Your task to perform on an android device: Open the web browser Image 0: 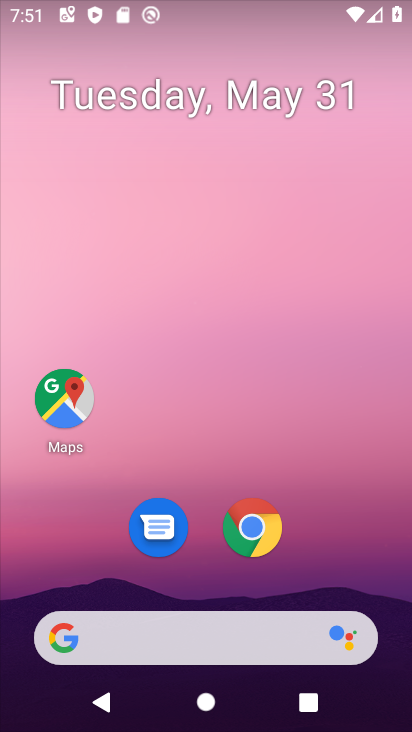
Step 0: click (252, 529)
Your task to perform on an android device: Open the web browser Image 1: 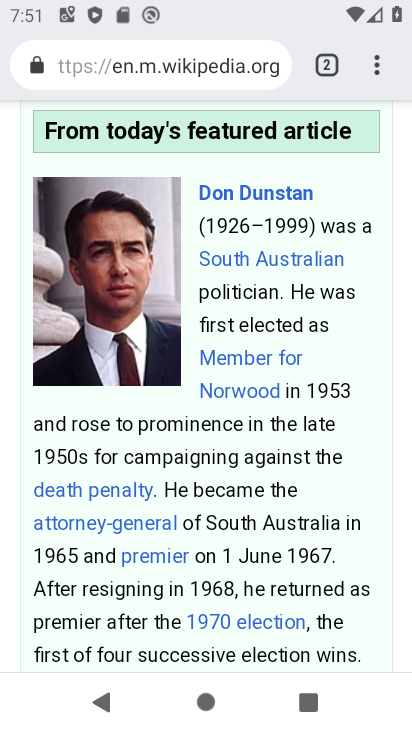
Step 1: click (375, 63)
Your task to perform on an android device: Open the web browser Image 2: 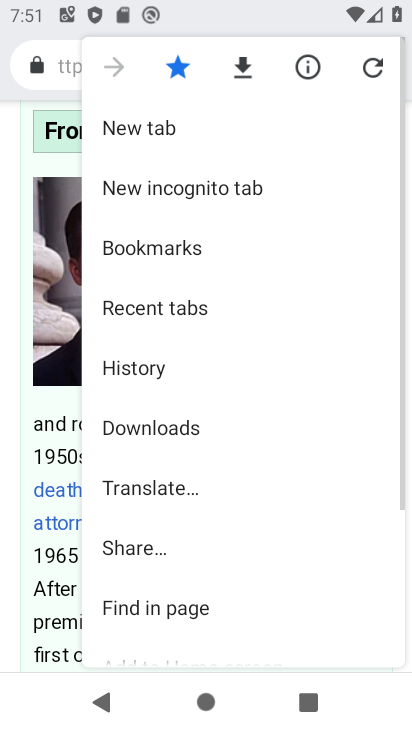
Step 2: click (158, 120)
Your task to perform on an android device: Open the web browser Image 3: 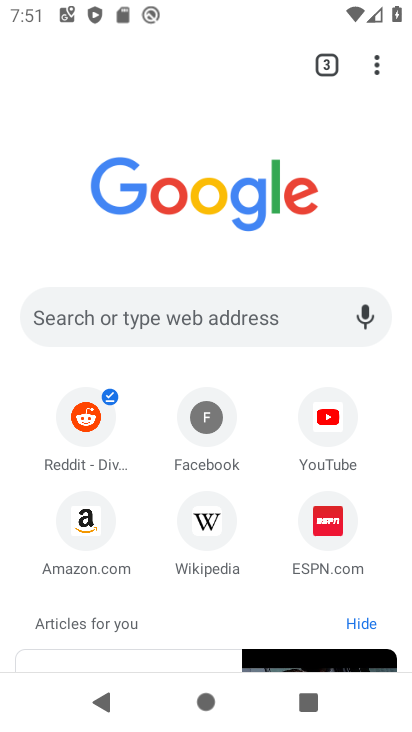
Step 3: task complete